Your task to perform on an android device: turn on the 24-hour format for clock Image 0: 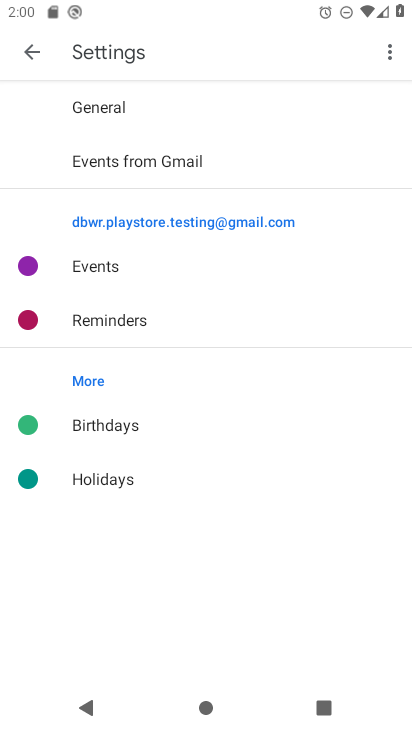
Step 0: press home button
Your task to perform on an android device: turn on the 24-hour format for clock Image 1: 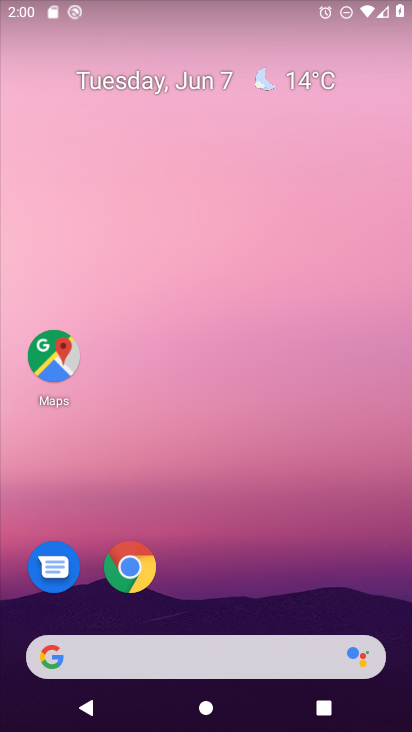
Step 1: drag from (288, 511) to (270, 0)
Your task to perform on an android device: turn on the 24-hour format for clock Image 2: 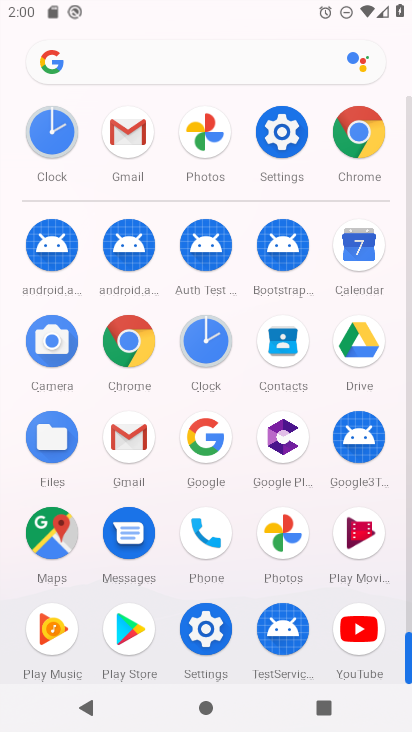
Step 2: click (210, 351)
Your task to perform on an android device: turn on the 24-hour format for clock Image 3: 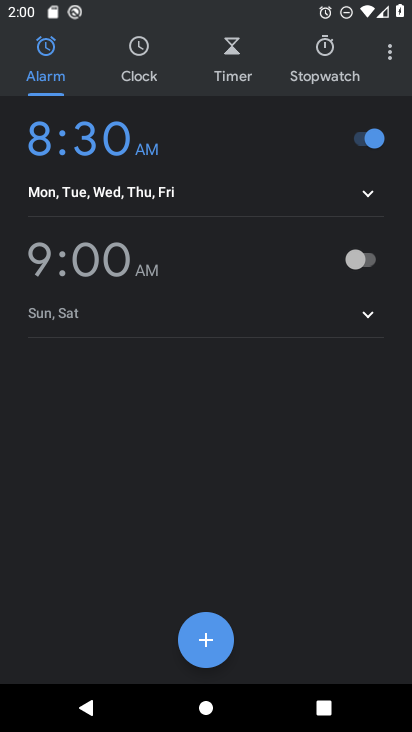
Step 3: click (391, 51)
Your task to perform on an android device: turn on the 24-hour format for clock Image 4: 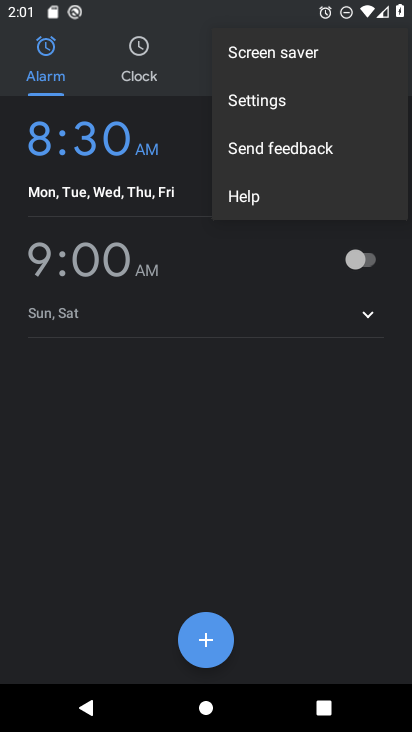
Step 4: click (277, 119)
Your task to perform on an android device: turn on the 24-hour format for clock Image 5: 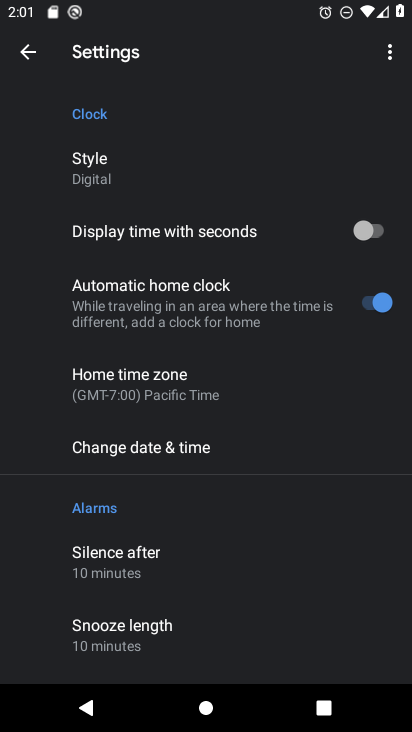
Step 5: drag from (198, 593) to (212, 151)
Your task to perform on an android device: turn on the 24-hour format for clock Image 6: 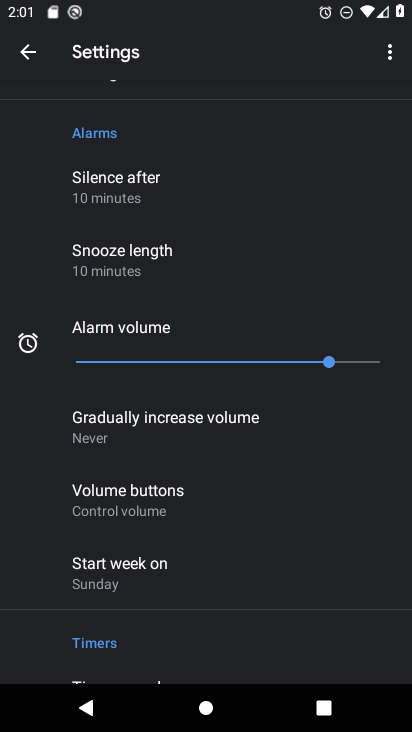
Step 6: drag from (202, 577) to (224, 96)
Your task to perform on an android device: turn on the 24-hour format for clock Image 7: 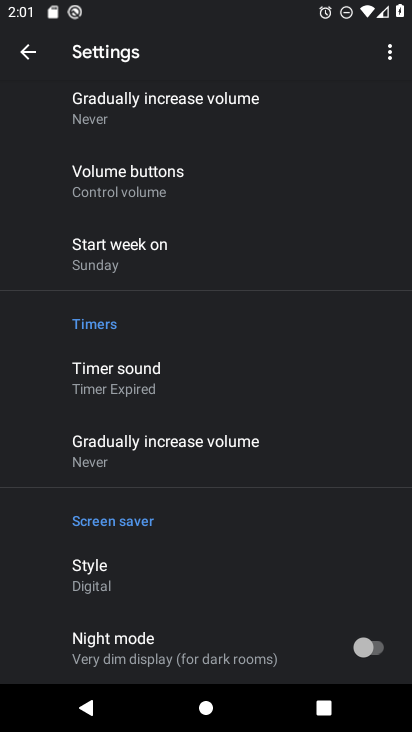
Step 7: drag from (229, 130) to (236, 631)
Your task to perform on an android device: turn on the 24-hour format for clock Image 8: 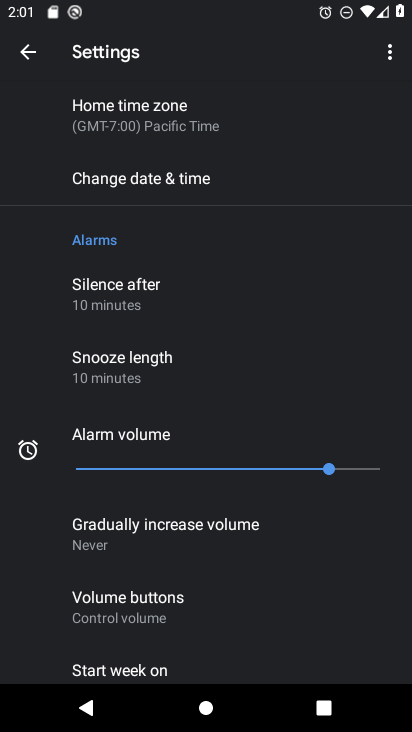
Step 8: drag from (220, 175) to (192, 568)
Your task to perform on an android device: turn on the 24-hour format for clock Image 9: 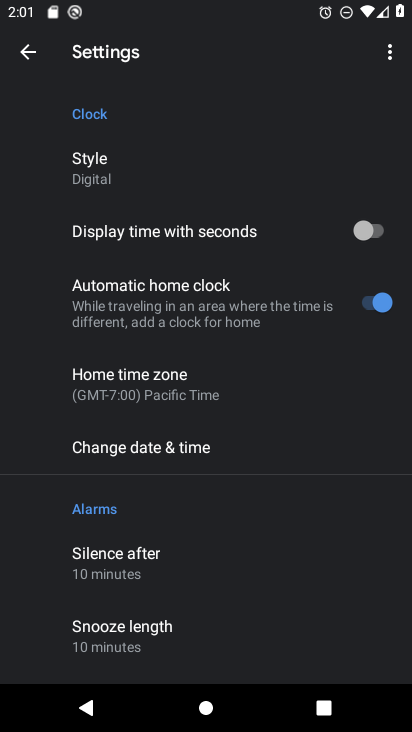
Step 9: click (131, 453)
Your task to perform on an android device: turn on the 24-hour format for clock Image 10: 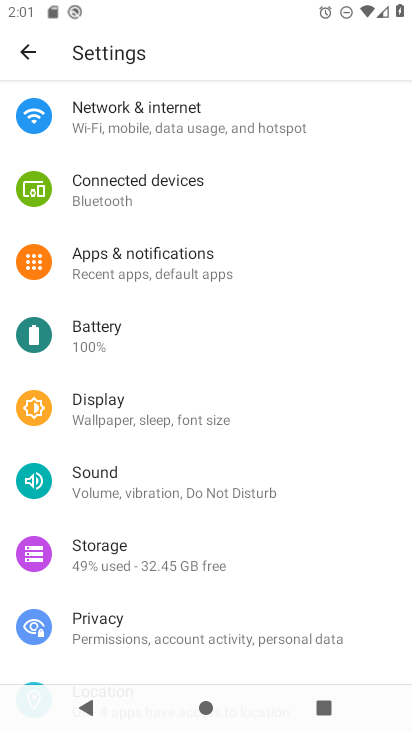
Step 10: task complete